Your task to perform on an android device: clear all cookies in the chrome app Image 0: 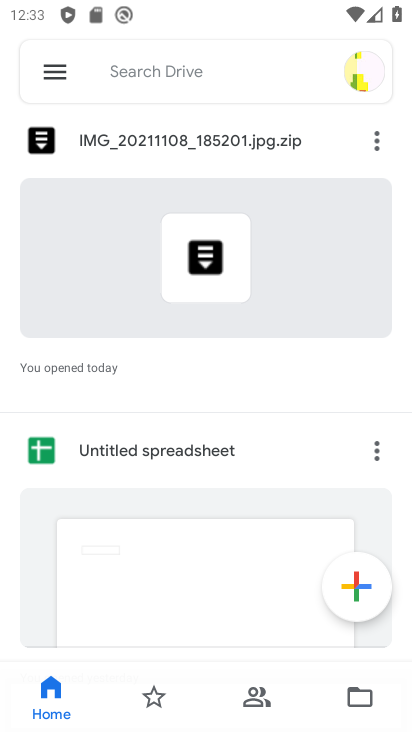
Step 0: press home button
Your task to perform on an android device: clear all cookies in the chrome app Image 1: 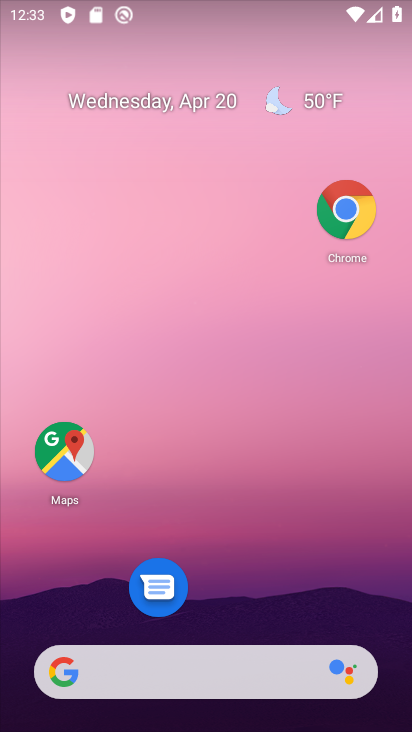
Step 1: click (357, 227)
Your task to perform on an android device: clear all cookies in the chrome app Image 2: 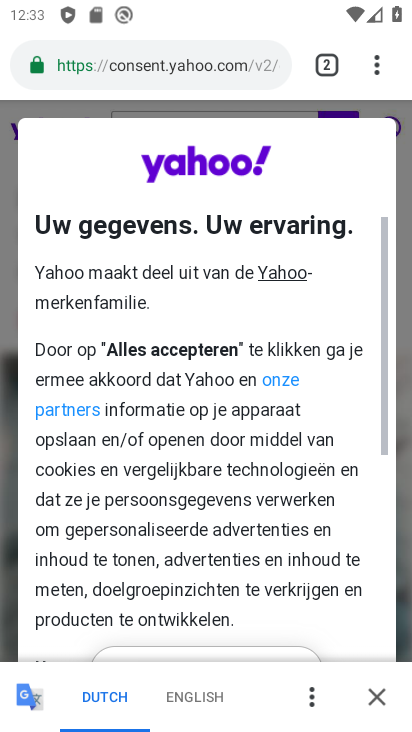
Step 2: click (381, 64)
Your task to perform on an android device: clear all cookies in the chrome app Image 3: 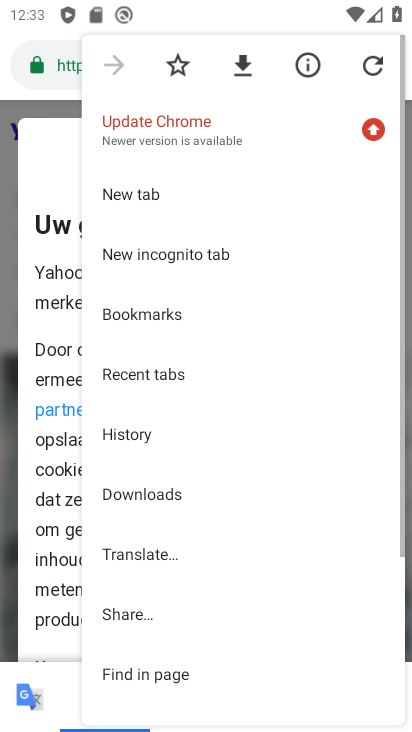
Step 3: drag from (162, 647) to (218, 331)
Your task to perform on an android device: clear all cookies in the chrome app Image 4: 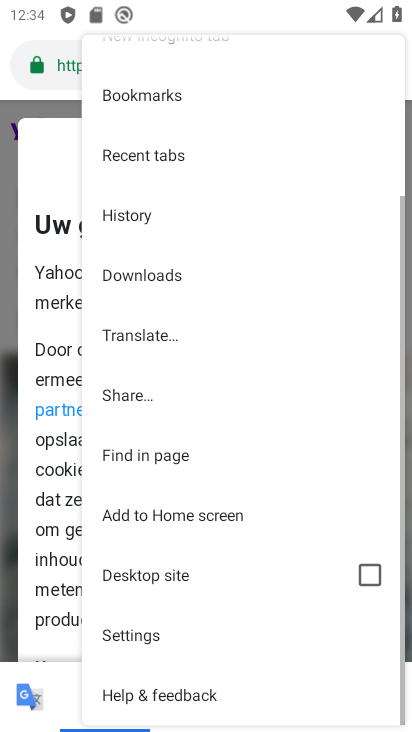
Step 4: click (140, 644)
Your task to perform on an android device: clear all cookies in the chrome app Image 5: 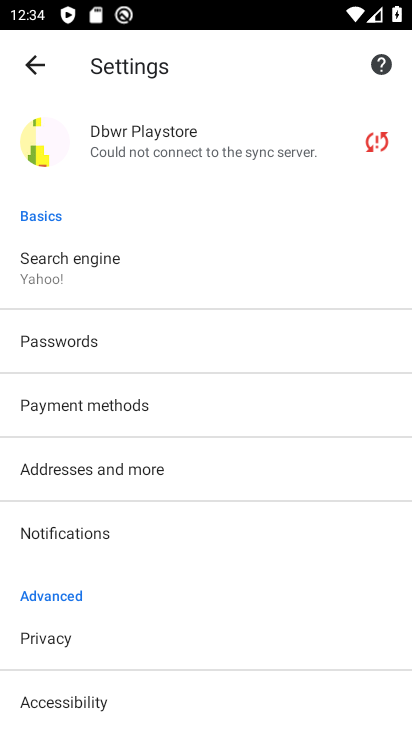
Step 5: drag from (87, 601) to (128, 236)
Your task to perform on an android device: clear all cookies in the chrome app Image 6: 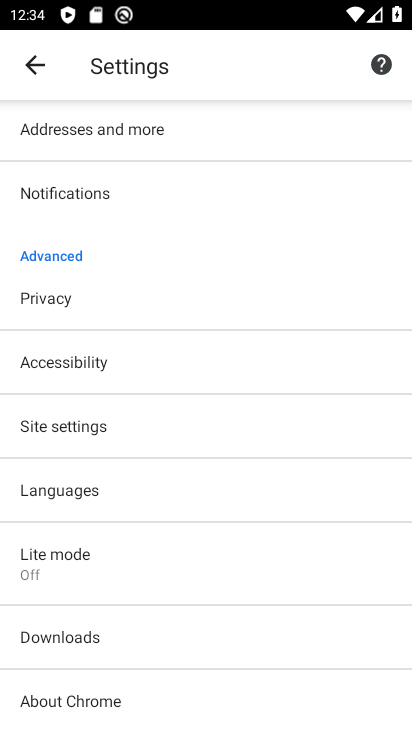
Step 6: click (33, 64)
Your task to perform on an android device: clear all cookies in the chrome app Image 7: 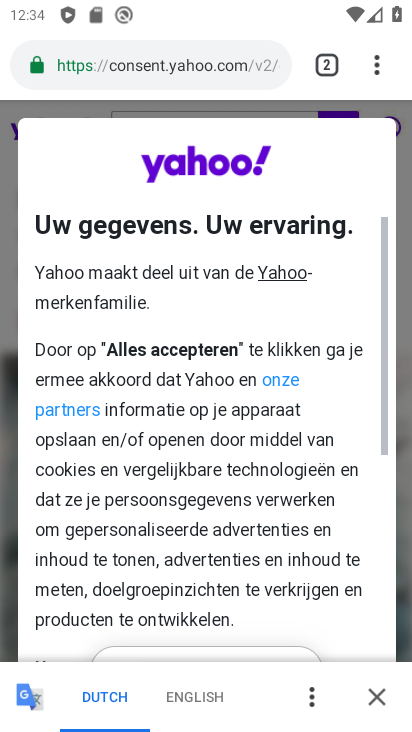
Step 7: click (378, 74)
Your task to perform on an android device: clear all cookies in the chrome app Image 8: 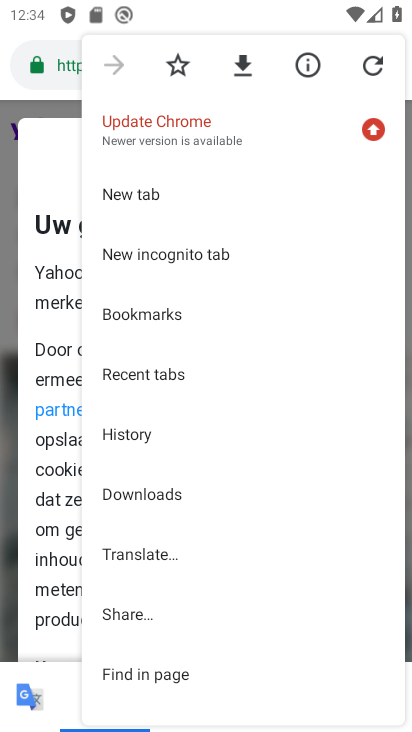
Step 8: click (139, 434)
Your task to perform on an android device: clear all cookies in the chrome app Image 9: 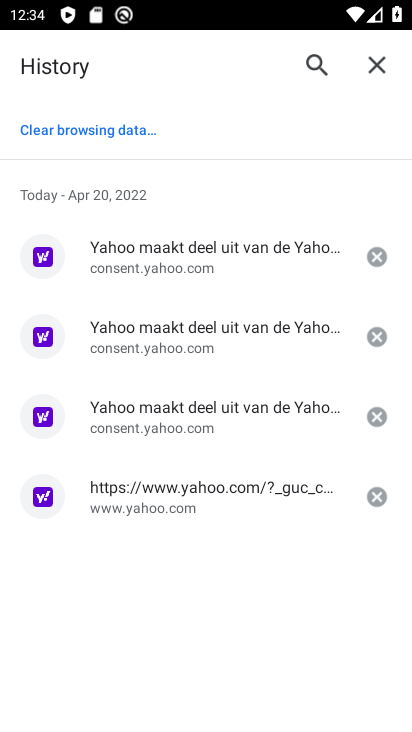
Step 9: click (115, 125)
Your task to perform on an android device: clear all cookies in the chrome app Image 10: 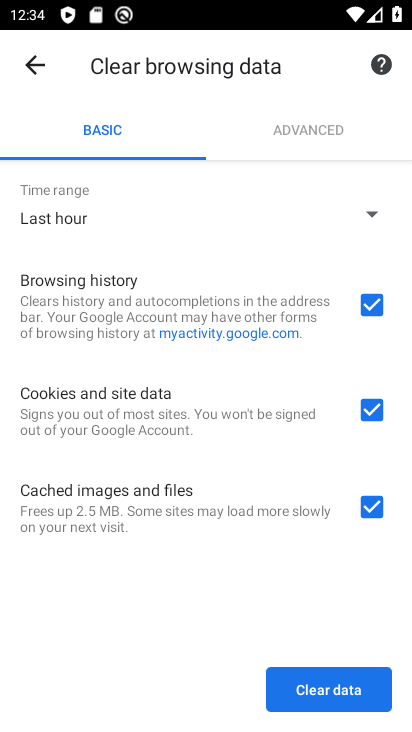
Step 10: click (369, 298)
Your task to perform on an android device: clear all cookies in the chrome app Image 11: 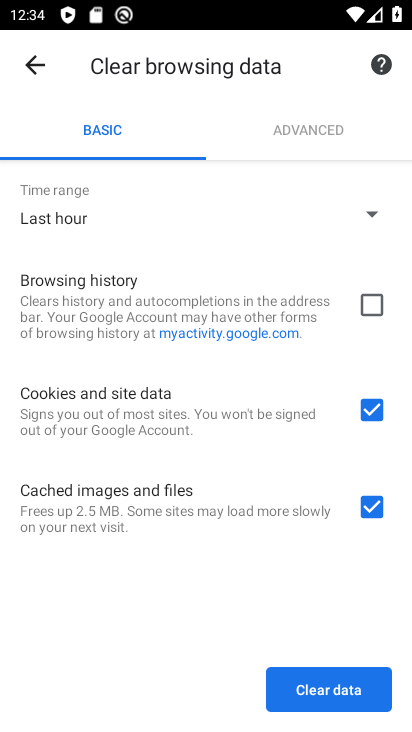
Step 11: click (376, 507)
Your task to perform on an android device: clear all cookies in the chrome app Image 12: 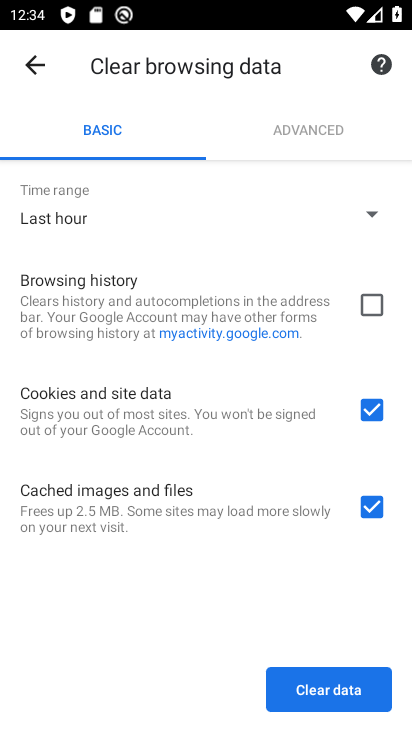
Step 12: click (376, 507)
Your task to perform on an android device: clear all cookies in the chrome app Image 13: 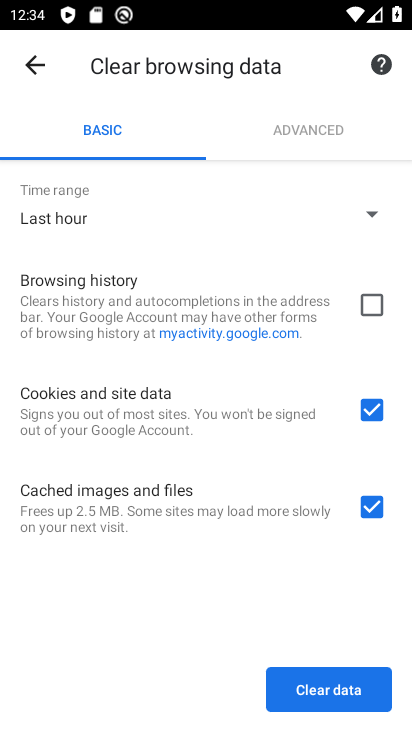
Step 13: click (326, 684)
Your task to perform on an android device: clear all cookies in the chrome app Image 14: 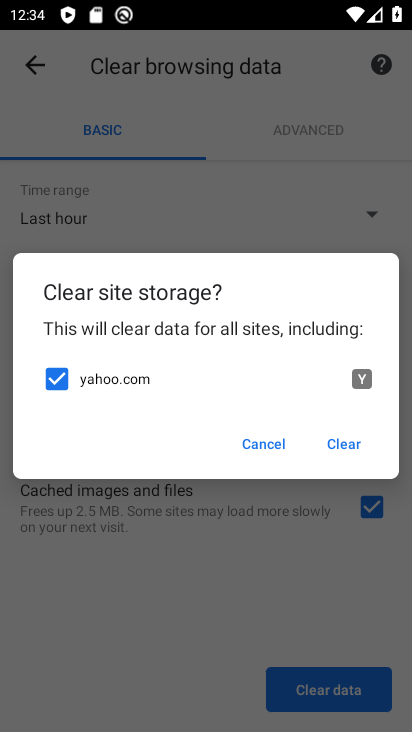
Step 14: click (344, 446)
Your task to perform on an android device: clear all cookies in the chrome app Image 15: 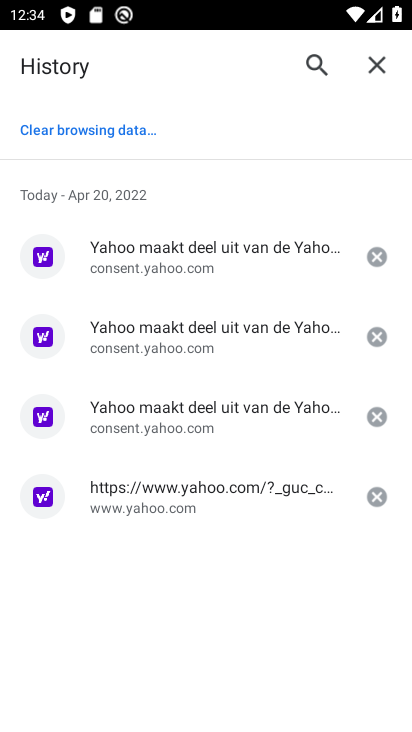
Step 15: task complete